Your task to perform on an android device: Open Android settings Image 0: 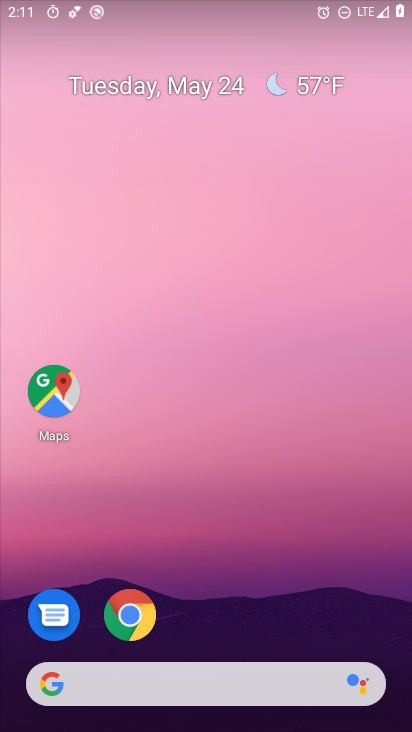
Step 0: drag from (187, 664) to (216, 185)
Your task to perform on an android device: Open Android settings Image 1: 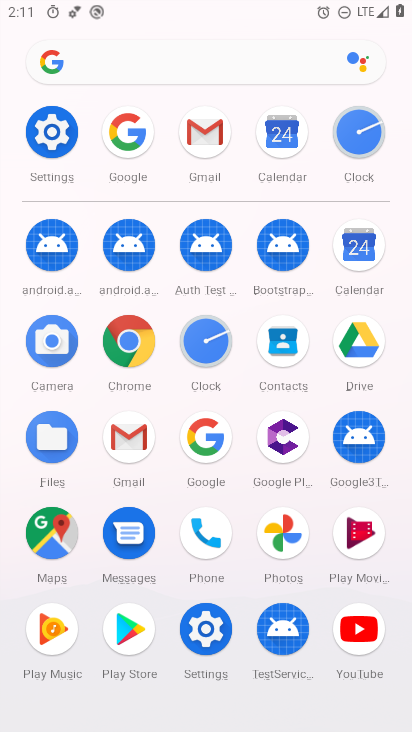
Step 1: click (64, 132)
Your task to perform on an android device: Open Android settings Image 2: 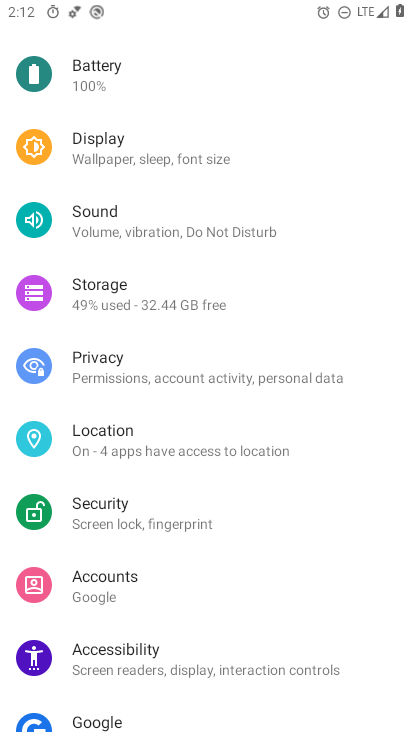
Step 2: task complete